Your task to perform on an android device: What's the weather going to be tomorrow? Image 0: 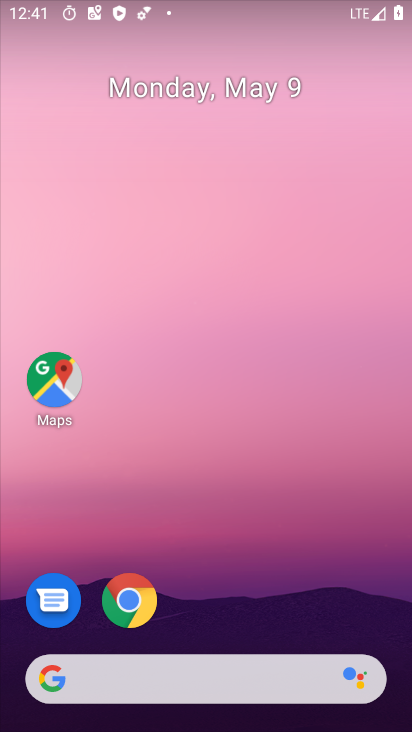
Step 0: drag from (218, 546) to (249, 94)
Your task to perform on an android device: What's the weather going to be tomorrow? Image 1: 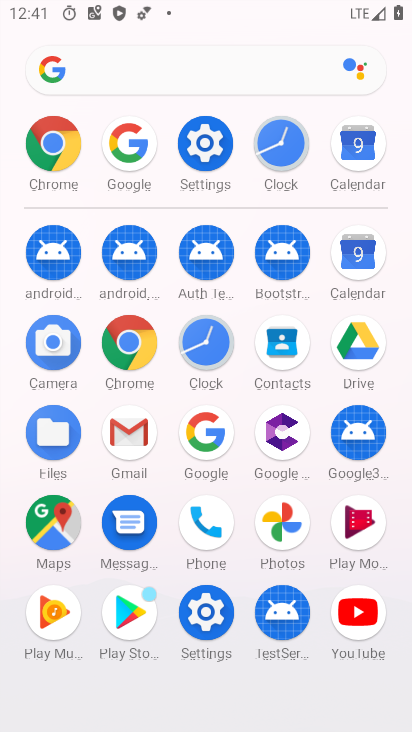
Step 1: click (206, 445)
Your task to perform on an android device: What's the weather going to be tomorrow? Image 2: 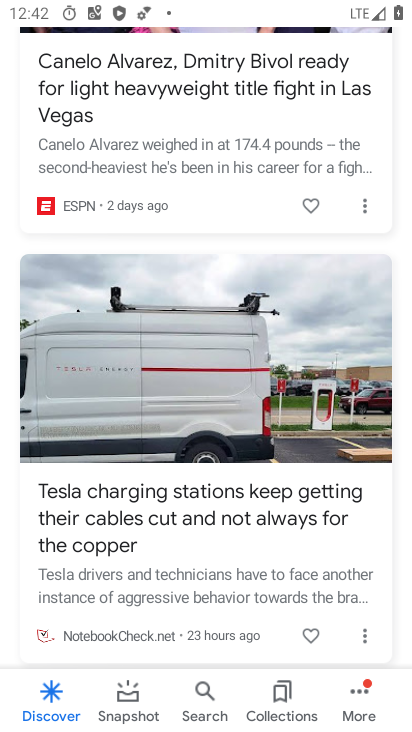
Step 2: drag from (216, 180) to (106, 729)
Your task to perform on an android device: What's the weather going to be tomorrow? Image 3: 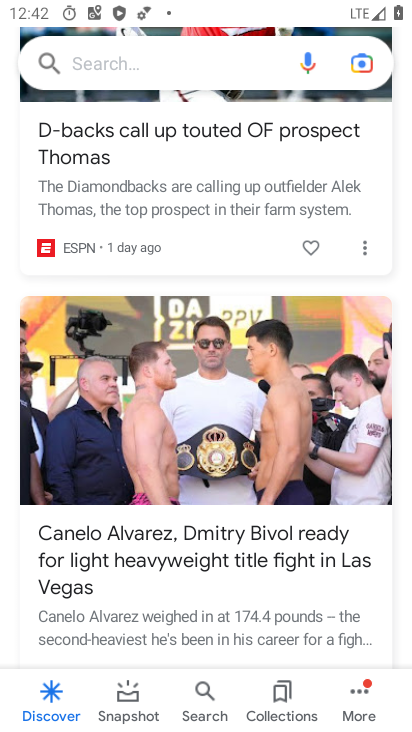
Step 3: click (202, 65)
Your task to perform on an android device: What's the weather going to be tomorrow? Image 4: 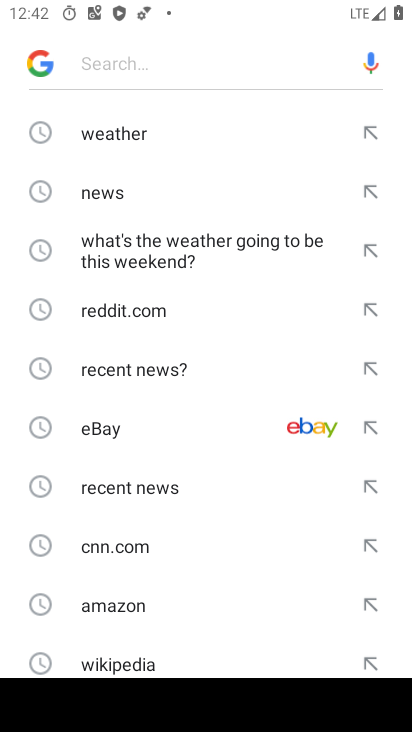
Step 4: click (196, 144)
Your task to perform on an android device: What's the weather going to be tomorrow? Image 5: 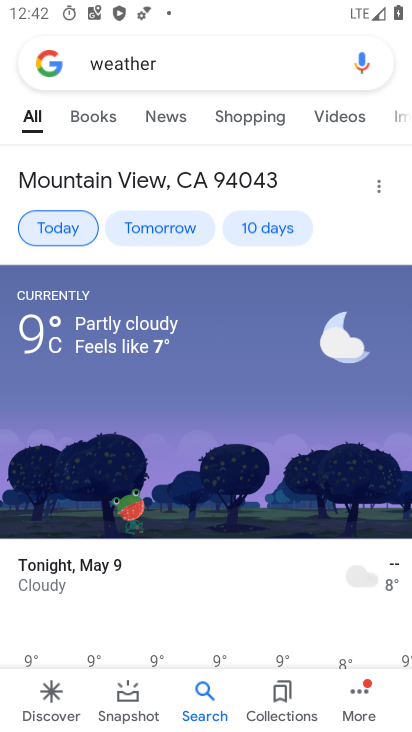
Step 5: click (173, 234)
Your task to perform on an android device: What's the weather going to be tomorrow? Image 6: 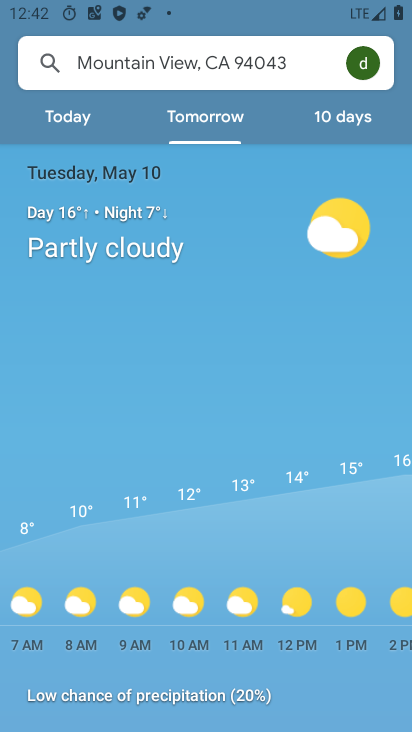
Step 6: task complete